Your task to perform on an android device: Open sound settings Image 0: 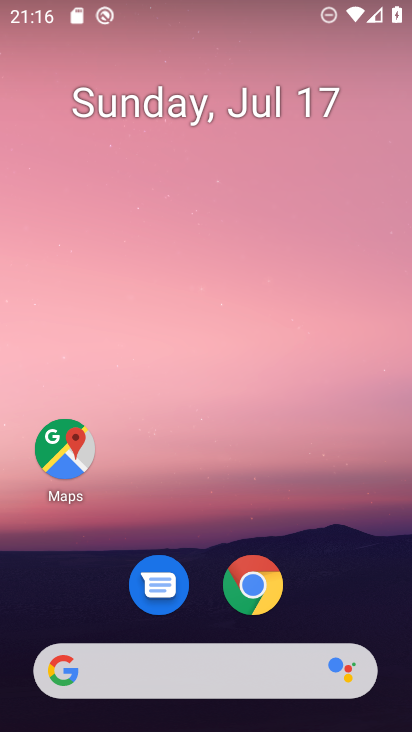
Step 0: drag from (158, 664) to (354, 52)
Your task to perform on an android device: Open sound settings Image 1: 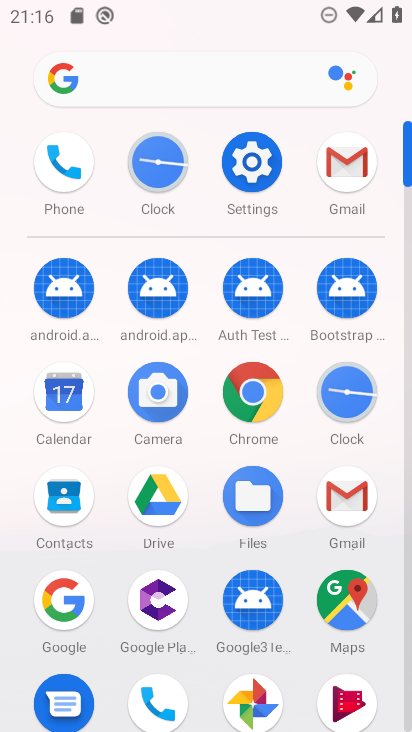
Step 1: click (251, 163)
Your task to perform on an android device: Open sound settings Image 2: 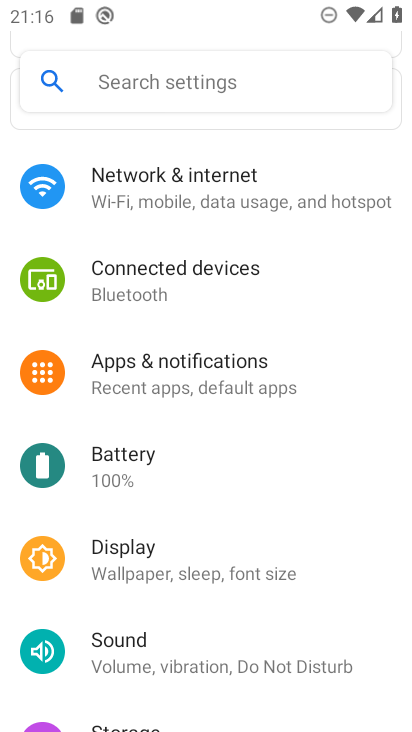
Step 2: click (172, 652)
Your task to perform on an android device: Open sound settings Image 3: 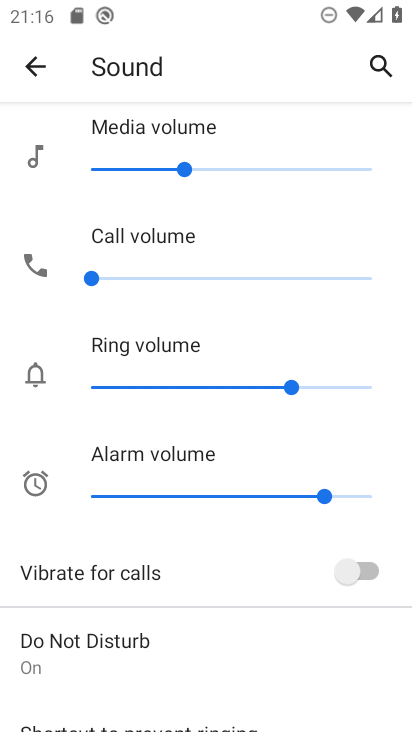
Step 3: task complete